Your task to perform on an android device: Open calendar and show me the fourth week of next month Image 0: 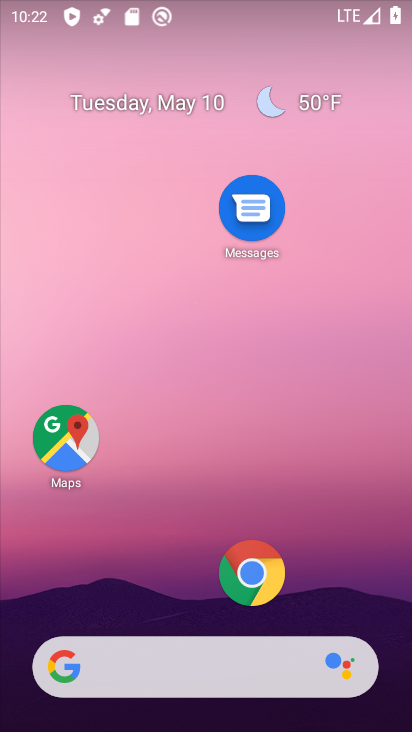
Step 0: drag from (172, 589) to (200, 100)
Your task to perform on an android device: Open calendar and show me the fourth week of next month Image 1: 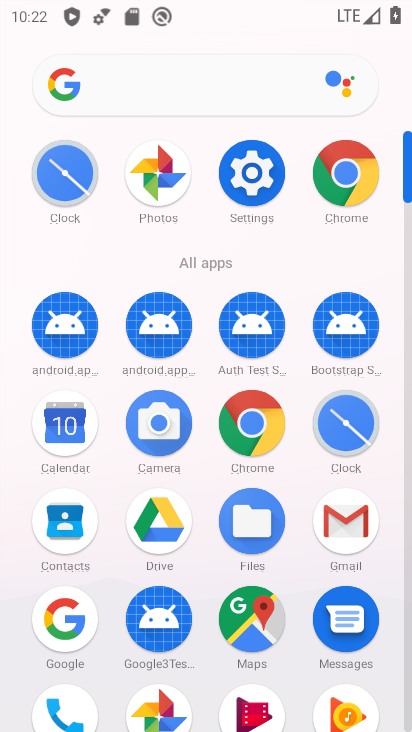
Step 1: click (67, 430)
Your task to perform on an android device: Open calendar and show me the fourth week of next month Image 2: 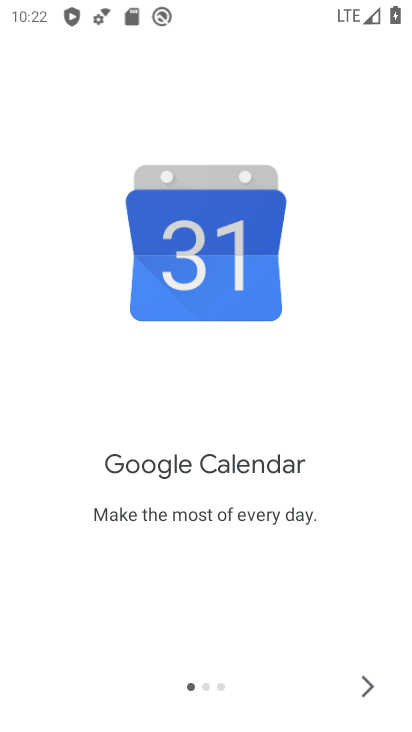
Step 2: click (364, 689)
Your task to perform on an android device: Open calendar and show me the fourth week of next month Image 3: 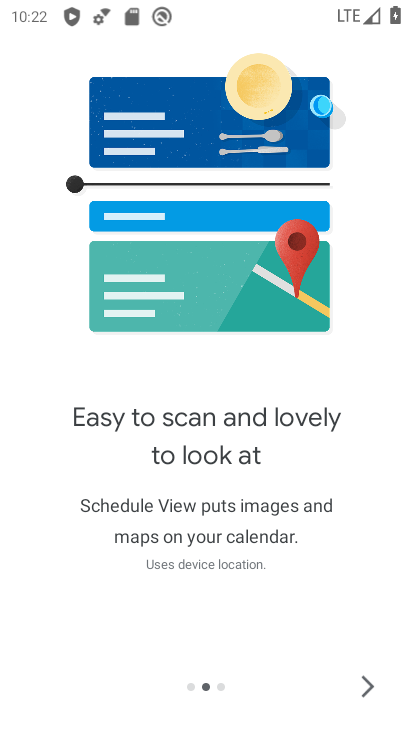
Step 3: click (364, 689)
Your task to perform on an android device: Open calendar and show me the fourth week of next month Image 4: 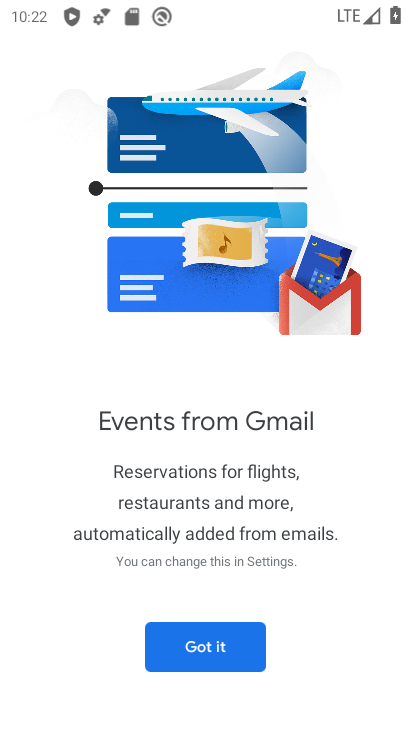
Step 4: click (364, 689)
Your task to perform on an android device: Open calendar and show me the fourth week of next month Image 5: 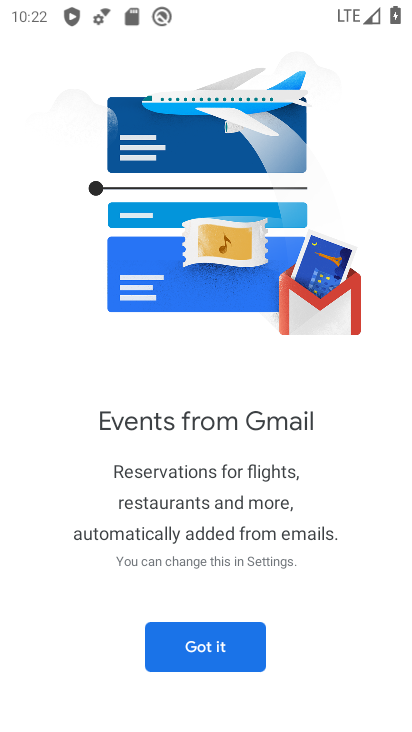
Step 5: click (204, 648)
Your task to perform on an android device: Open calendar and show me the fourth week of next month Image 6: 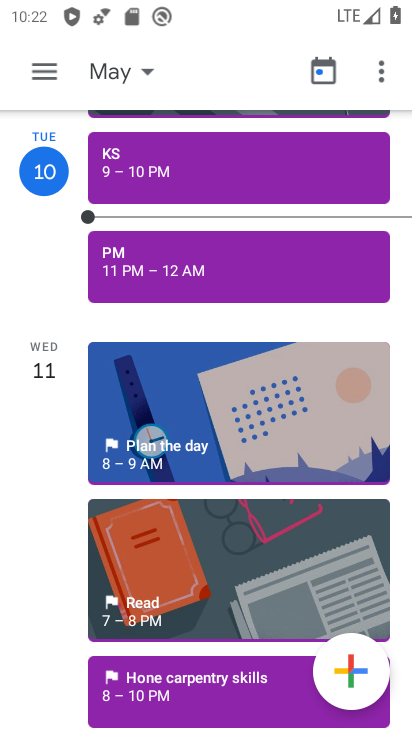
Step 6: click (137, 74)
Your task to perform on an android device: Open calendar and show me the fourth week of next month Image 7: 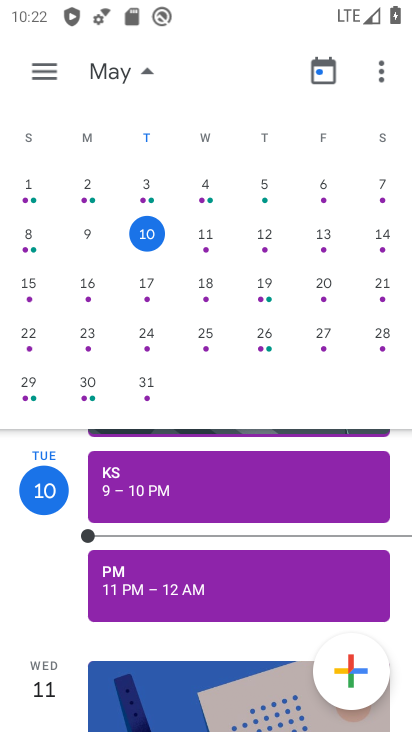
Step 7: drag from (374, 385) to (26, 290)
Your task to perform on an android device: Open calendar and show me the fourth week of next month Image 8: 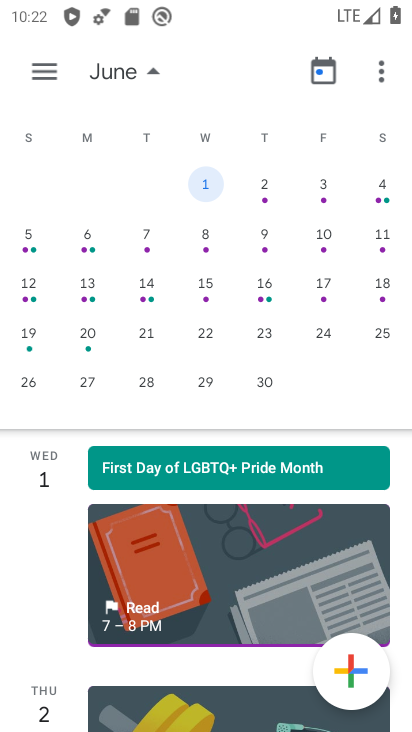
Step 8: click (209, 326)
Your task to perform on an android device: Open calendar and show me the fourth week of next month Image 9: 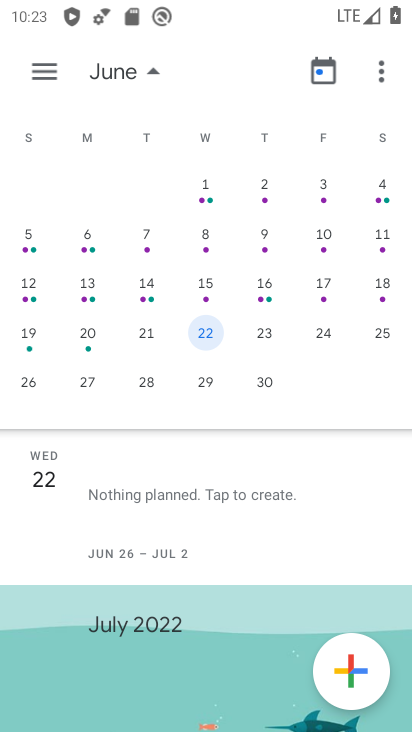
Step 9: task complete